Your task to perform on an android device: Open the map Image 0: 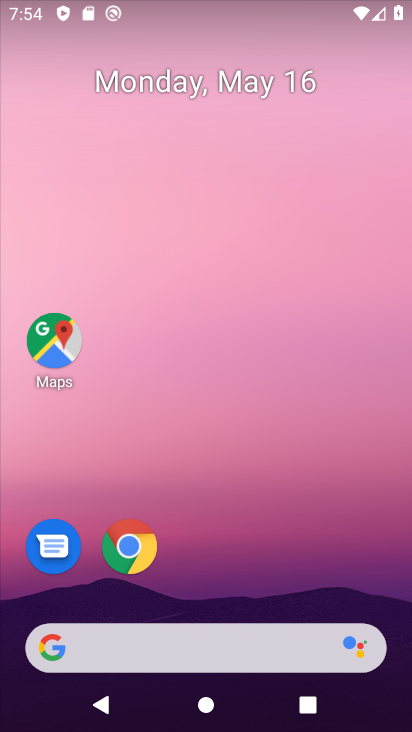
Step 0: click (62, 358)
Your task to perform on an android device: Open the map Image 1: 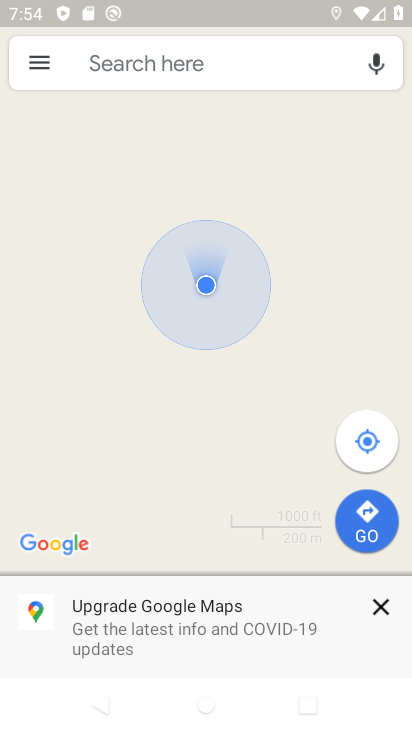
Step 1: task complete